Your task to perform on an android device: open sync settings in chrome Image 0: 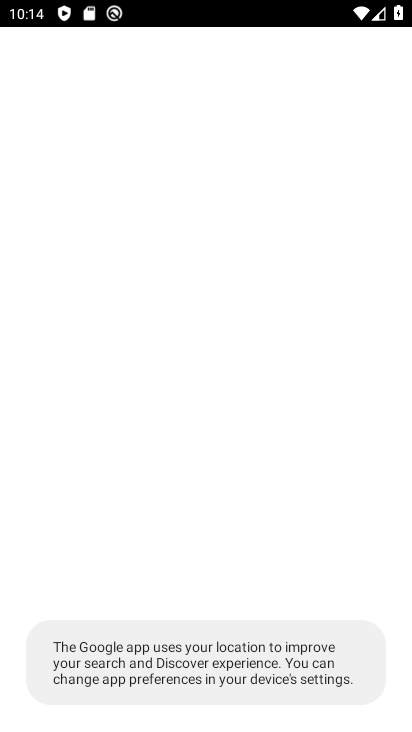
Step 0: press home button
Your task to perform on an android device: open sync settings in chrome Image 1: 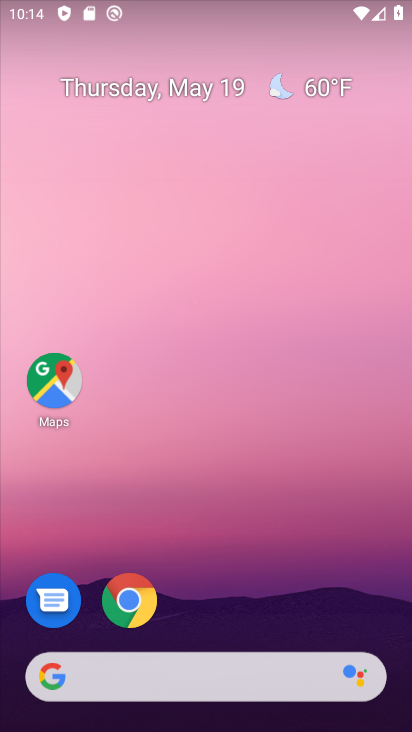
Step 1: drag from (348, 608) to (351, 120)
Your task to perform on an android device: open sync settings in chrome Image 2: 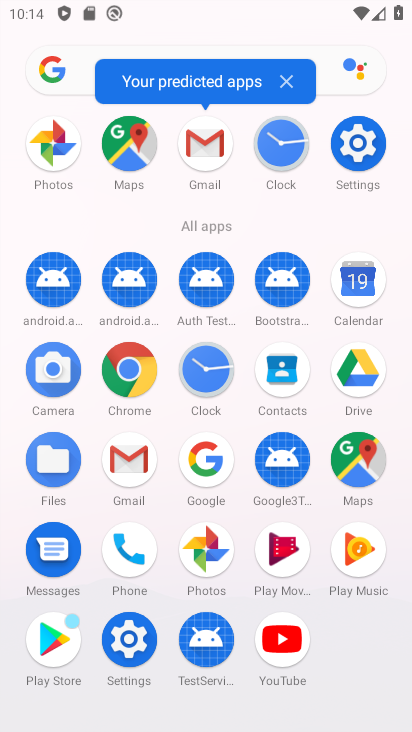
Step 2: click (135, 378)
Your task to perform on an android device: open sync settings in chrome Image 3: 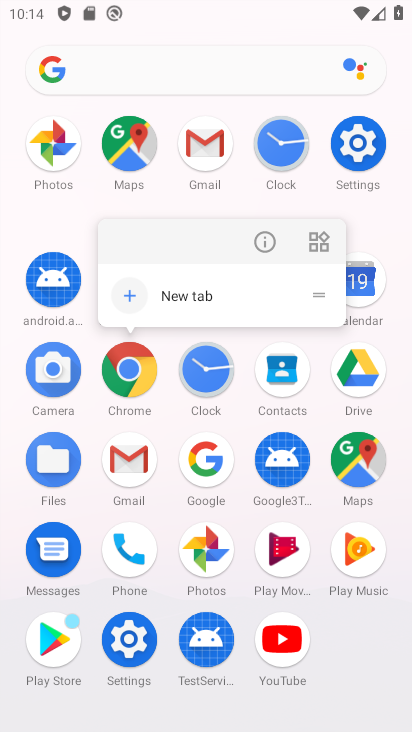
Step 3: click (135, 378)
Your task to perform on an android device: open sync settings in chrome Image 4: 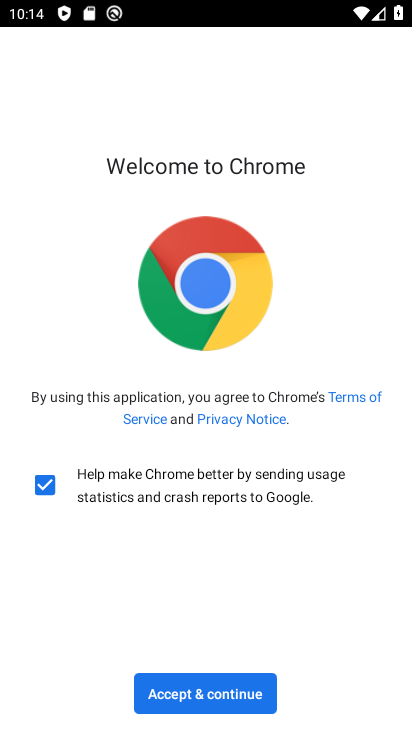
Step 4: click (231, 699)
Your task to perform on an android device: open sync settings in chrome Image 5: 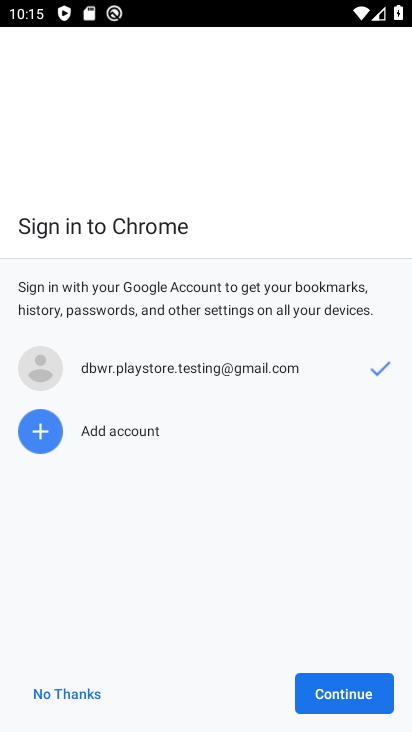
Step 5: click (296, 699)
Your task to perform on an android device: open sync settings in chrome Image 6: 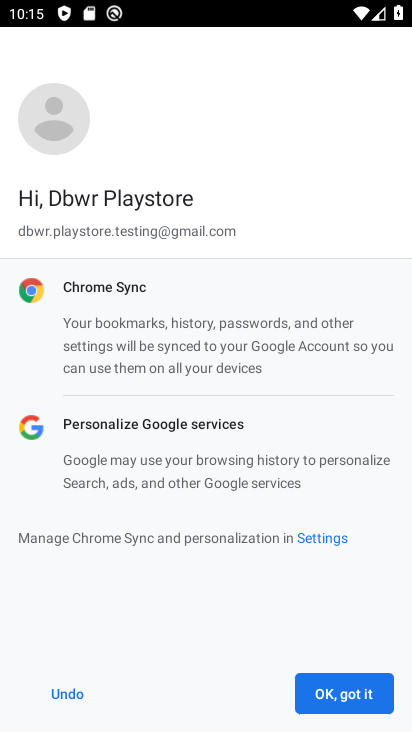
Step 6: click (296, 699)
Your task to perform on an android device: open sync settings in chrome Image 7: 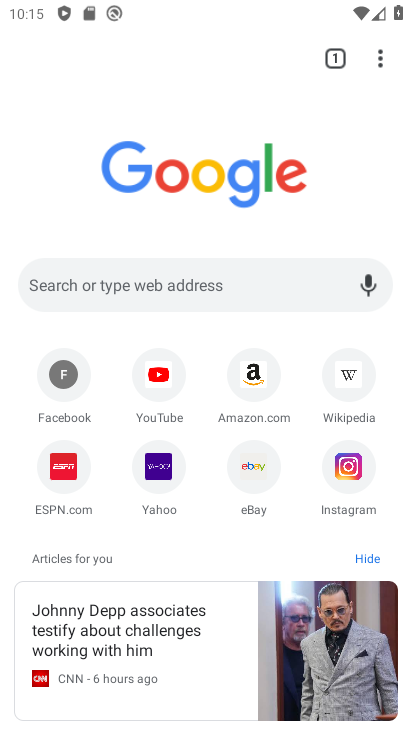
Step 7: click (379, 66)
Your task to perform on an android device: open sync settings in chrome Image 8: 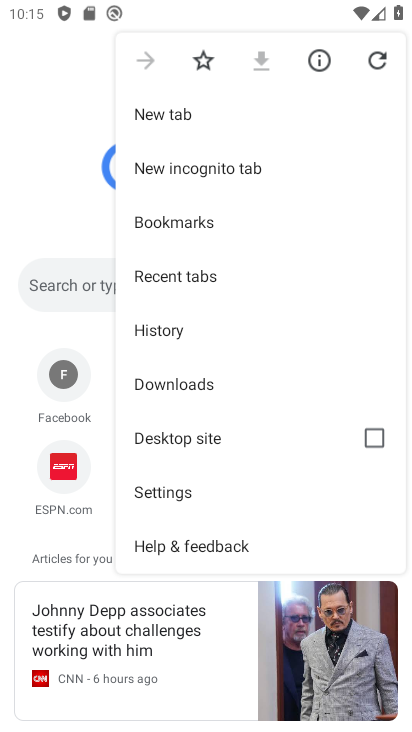
Step 8: click (203, 505)
Your task to perform on an android device: open sync settings in chrome Image 9: 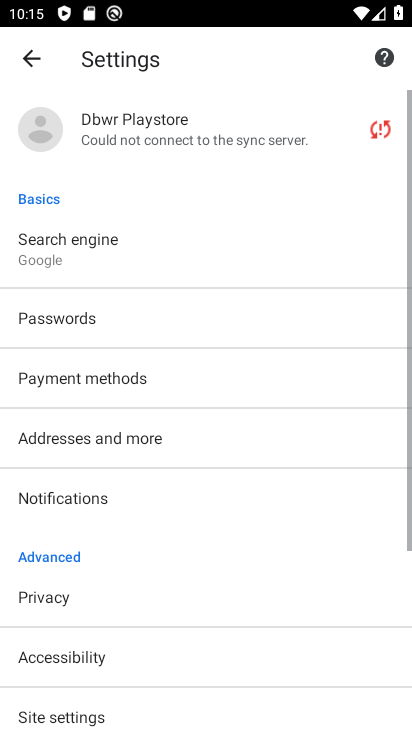
Step 9: drag from (278, 559) to (280, 464)
Your task to perform on an android device: open sync settings in chrome Image 10: 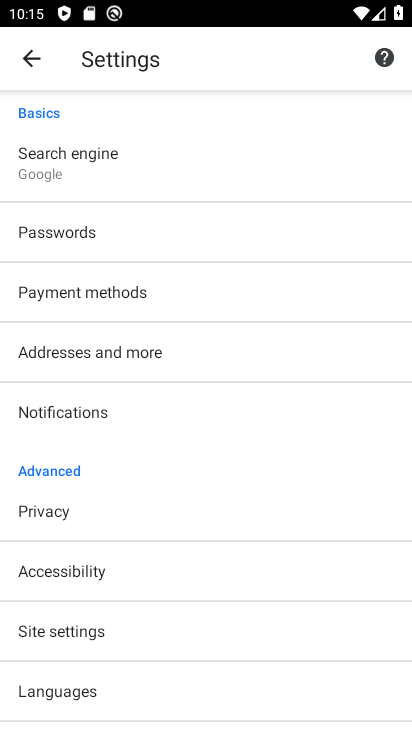
Step 10: drag from (289, 578) to (291, 494)
Your task to perform on an android device: open sync settings in chrome Image 11: 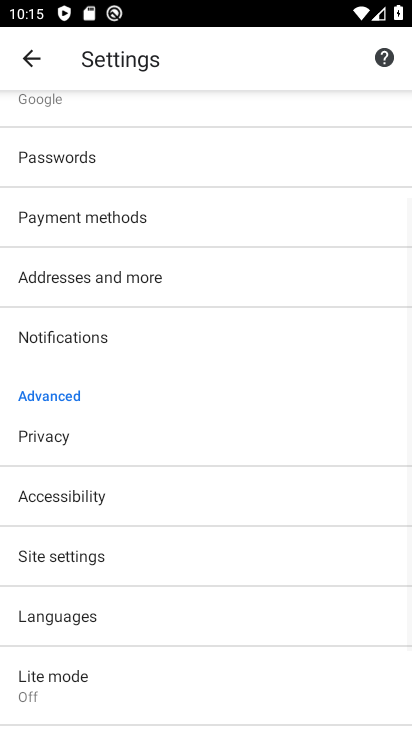
Step 11: drag from (289, 628) to (271, 510)
Your task to perform on an android device: open sync settings in chrome Image 12: 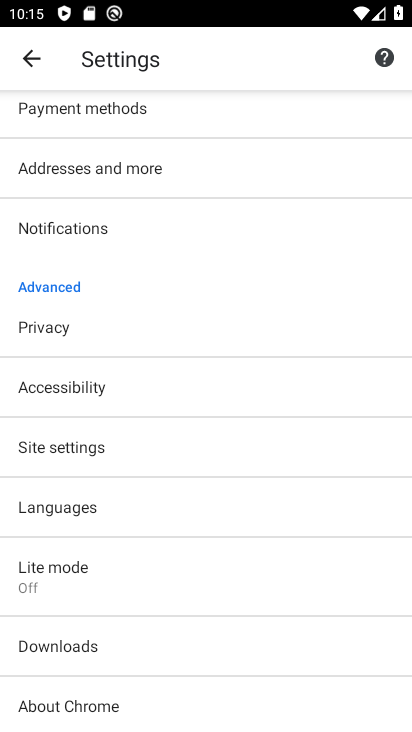
Step 12: drag from (275, 645) to (285, 537)
Your task to perform on an android device: open sync settings in chrome Image 13: 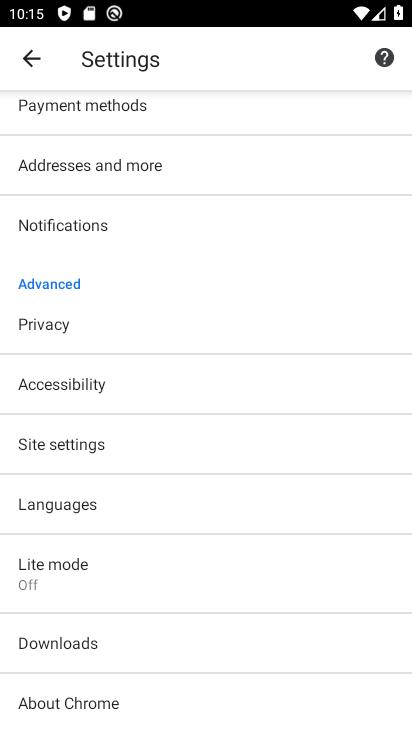
Step 13: drag from (300, 401) to (304, 458)
Your task to perform on an android device: open sync settings in chrome Image 14: 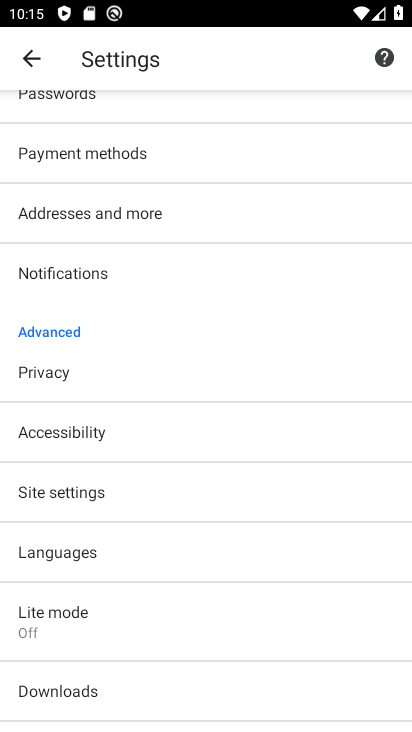
Step 14: drag from (293, 357) to (289, 490)
Your task to perform on an android device: open sync settings in chrome Image 15: 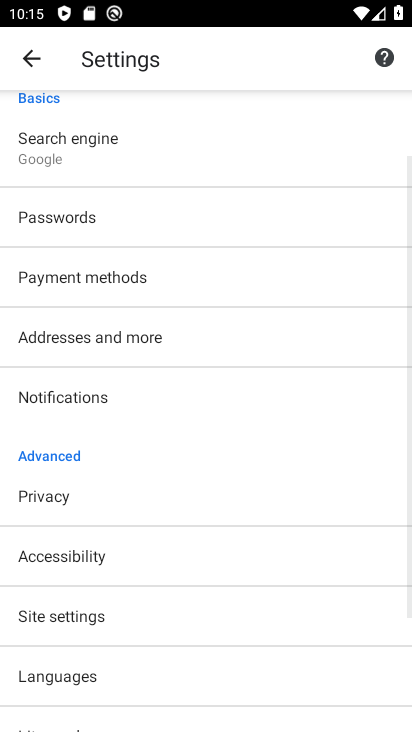
Step 15: drag from (288, 275) to (277, 464)
Your task to perform on an android device: open sync settings in chrome Image 16: 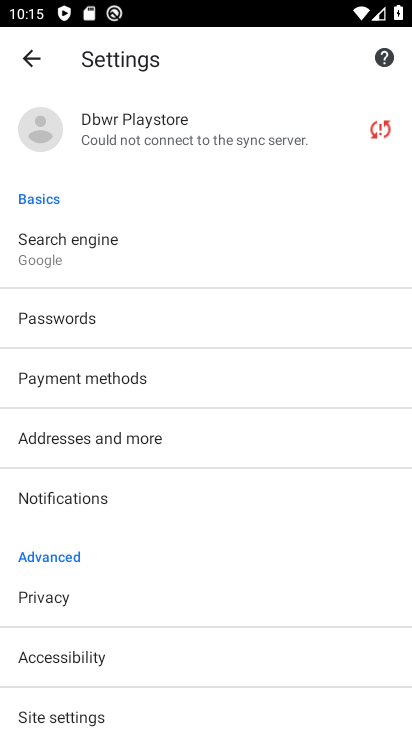
Step 16: drag from (277, 481) to (281, 380)
Your task to perform on an android device: open sync settings in chrome Image 17: 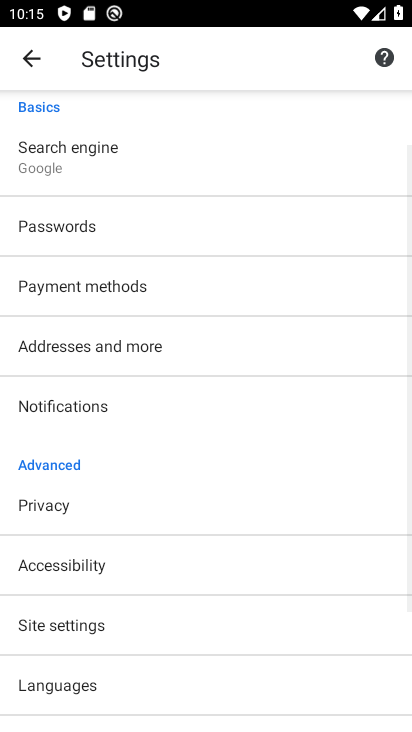
Step 17: drag from (274, 577) to (274, 429)
Your task to perform on an android device: open sync settings in chrome Image 18: 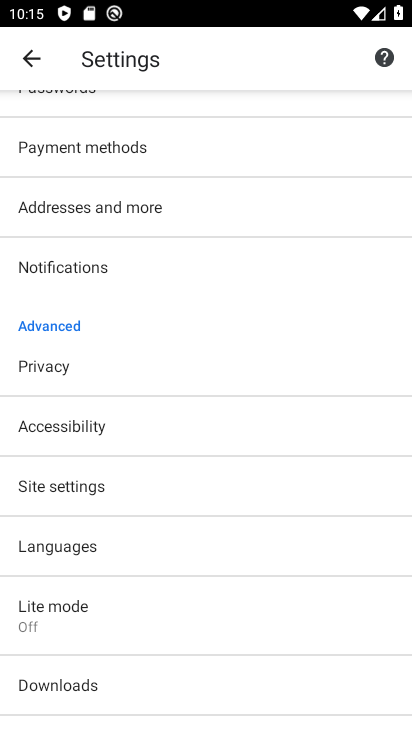
Step 18: click (200, 487)
Your task to perform on an android device: open sync settings in chrome Image 19: 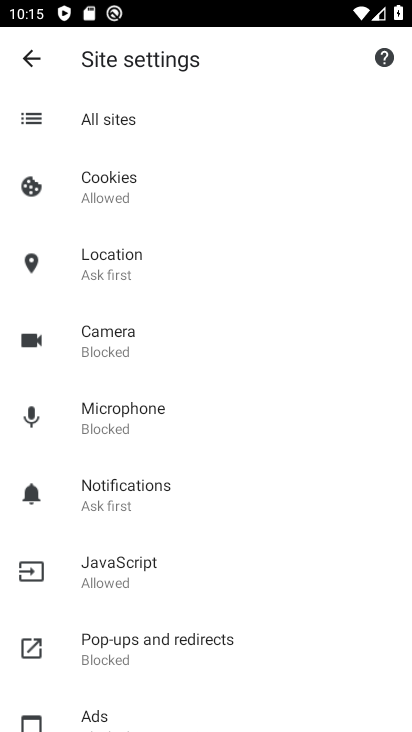
Step 19: drag from (261, 583) to (260, 463)
Your task to perform on an android device: open sync settings in chrome Image 20: 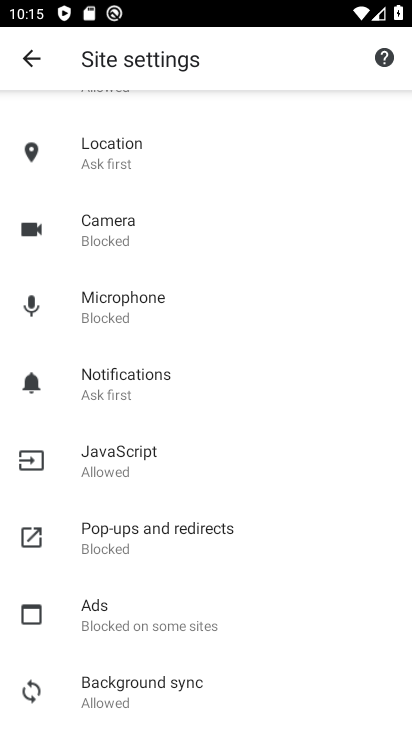
Step 20: drag from (291, 373) to (300, 518)
Your task to perform on an android device: open sync settings in chrome Image 21: 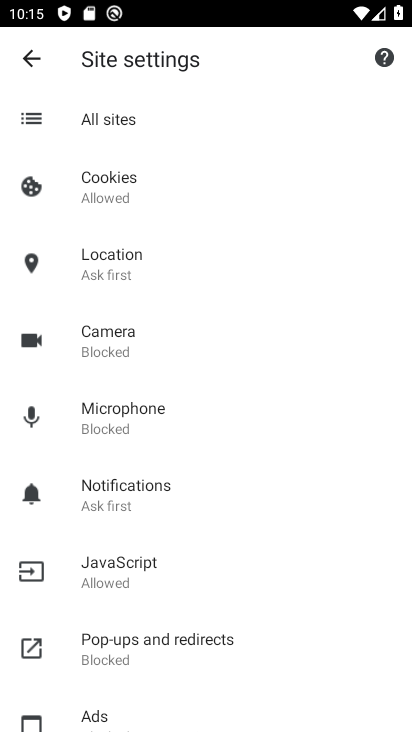
Step 21: drag from (316, 593) to (309, 440)
Your task to perform on an android device: open sync settings in chrome Image 22: 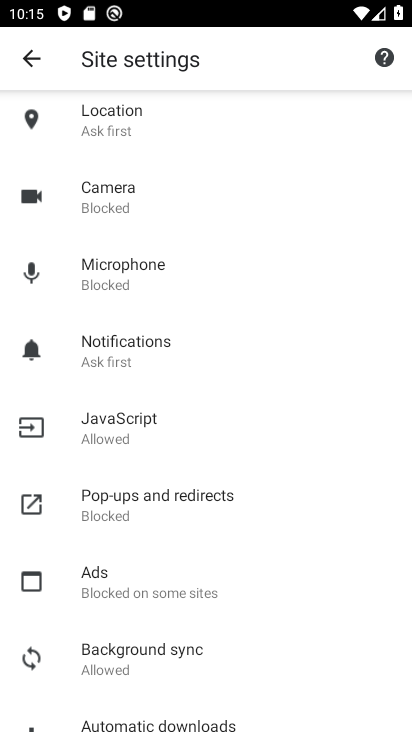
Step 22: drag from (302, 567) to (295, 479)
Your task to perform on an android device: open sync settings in chrome Image 23: 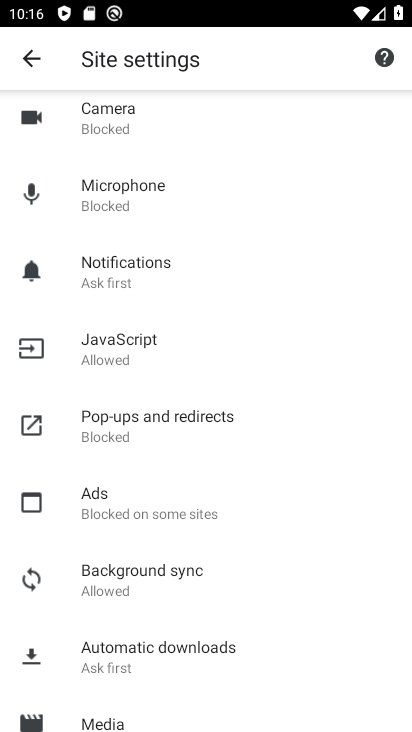
Step 23: drag from (298, 546) to (294, 458)
Your task to perform on an android device: open sync settings in chrome Image 24: 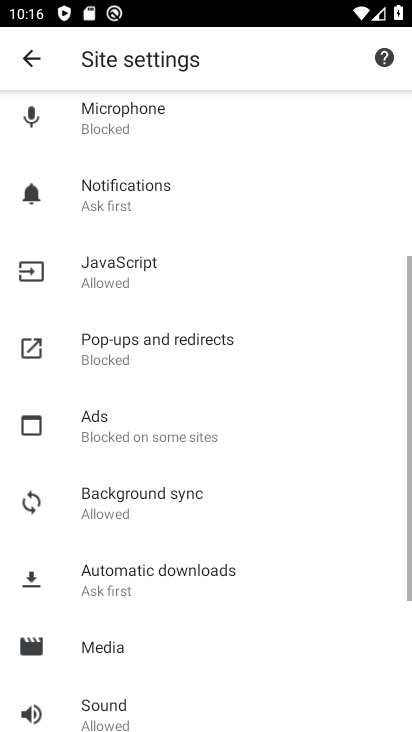
Step 24: click (253, 512)
Your task to perform on an android device: open sync settings in chrome Image 25: 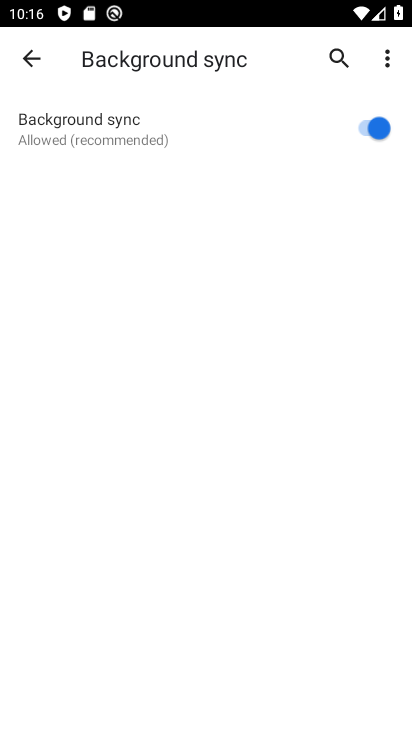
Step 25: task complete